Your task to perform on an android device: all mails in gmail Image 0: 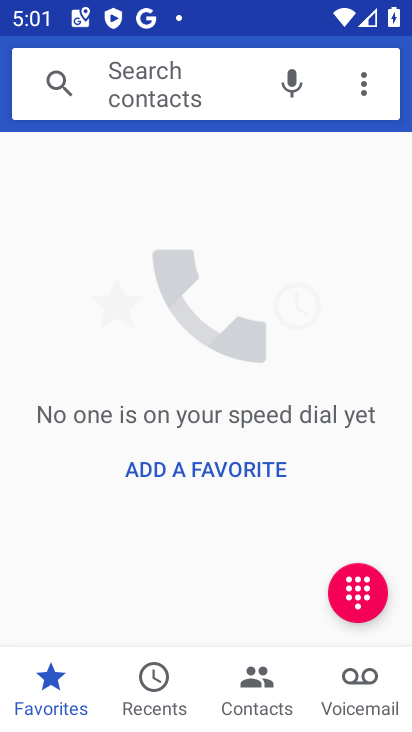
Step 0: press back button
Your task to perform on an android device: all mails in gmail Image 1: 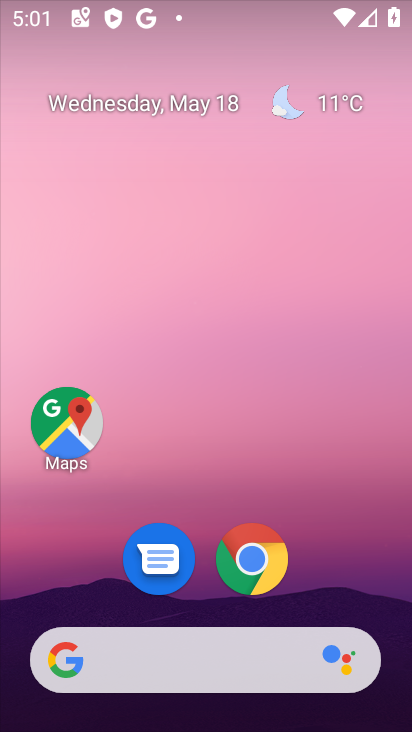
Step 1: drag from (207, 570) to (206, 141)
Your task to perform on an android device: all mails in gmail Image 2: 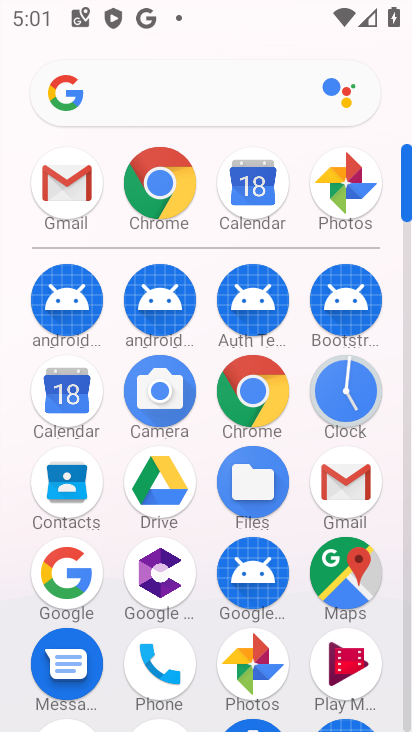
Step 2: click (74, 163)
Your task to perform on an android device: all mails in gmail Image 3: 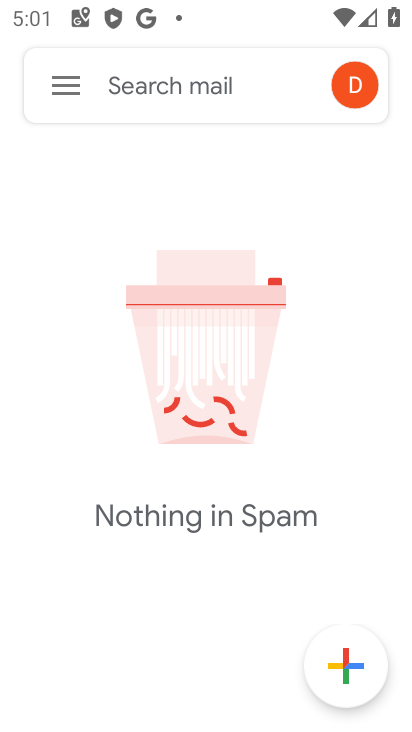
Step 3: click (74, 98)
Your task to perform on an android device: all mails in gmail Image 4: 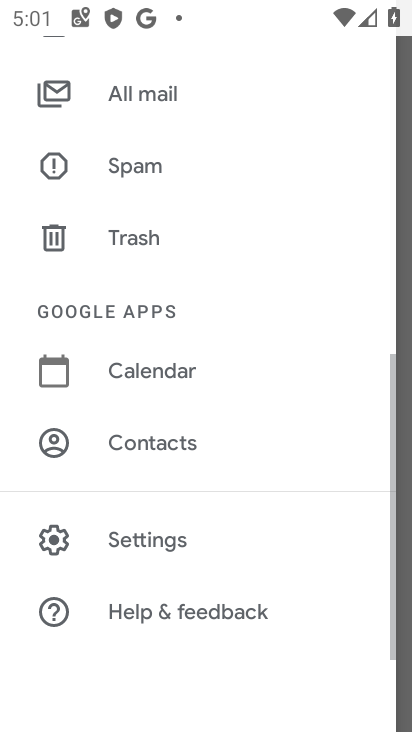
Step 4: click (144, 112)
Your task to perform on an android device: all mails in gmail Image 5: 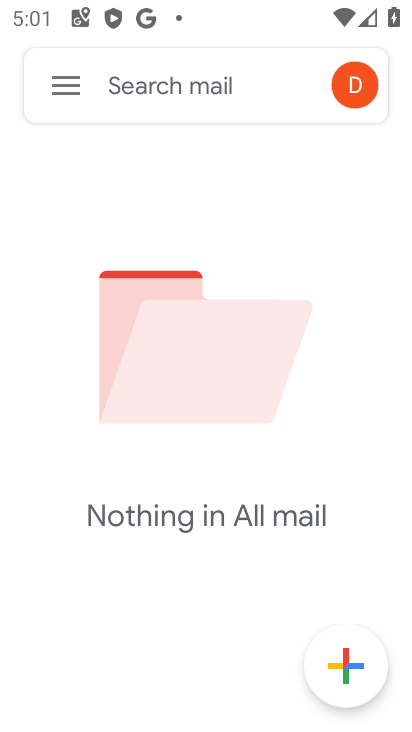
Step 5: task complete